Your task to perform on an android device: Open location settings Image 0: 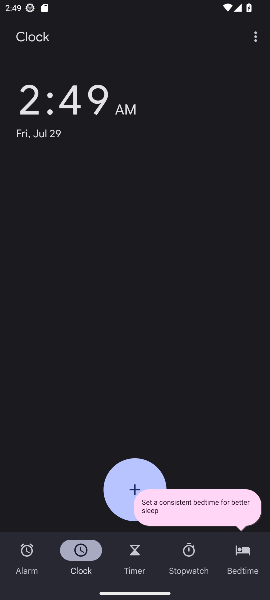
Step 0: press home button
Your task to perform on an android device: Open location settings Image 1: 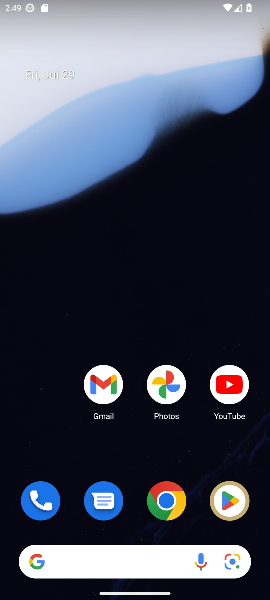
Step 1: drag from (136, 466) to (126, 41)
Your task to perform on an android device: Open location settings Image 2: 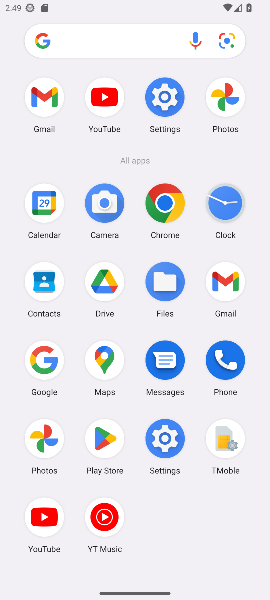
Step 2: click (155, 87)
Your task to perform on an android device: Open location settings Image 3: 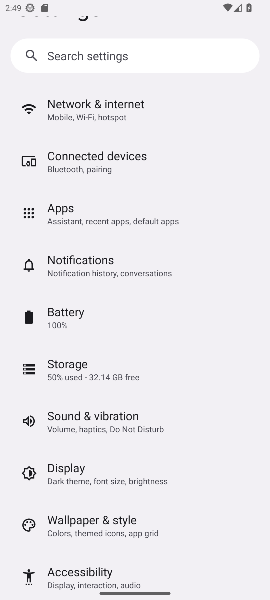
Step 3: drag from (90, 516) to (107, 274)
Your task to perform on an android device: Open location settings Image 4: 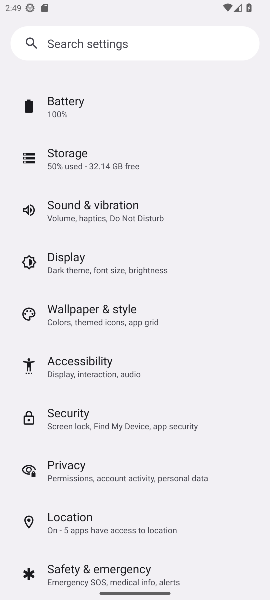
Step 4: click (118, 514)
Your task to perform on an android device: Open location settings Image 5: 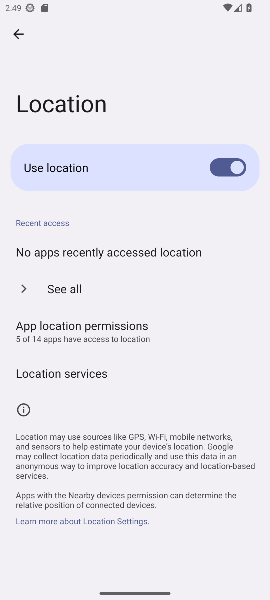
Step 5: task complete